Your task to perform on an android device: What's the weather today? Image 0: 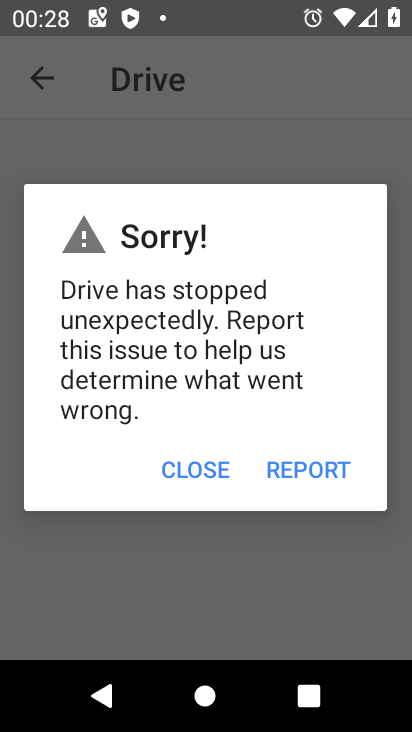
Step 0: press home button
Your task to perform on an android device: What's the weather today? Image 1: 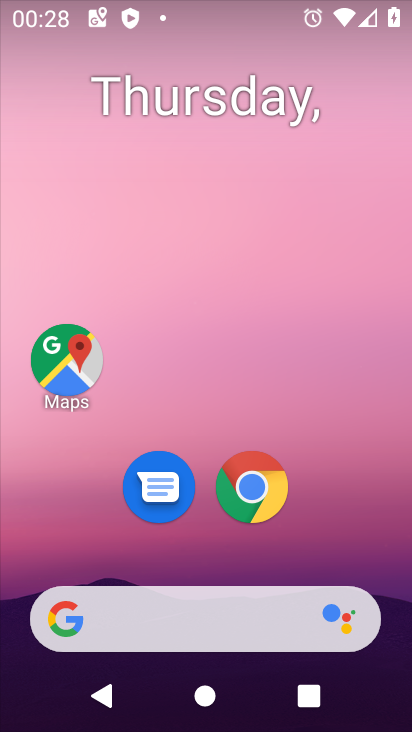
Step 1: click (114, 620)
Your task to perform on an android device: What's the weather today? Image 2: 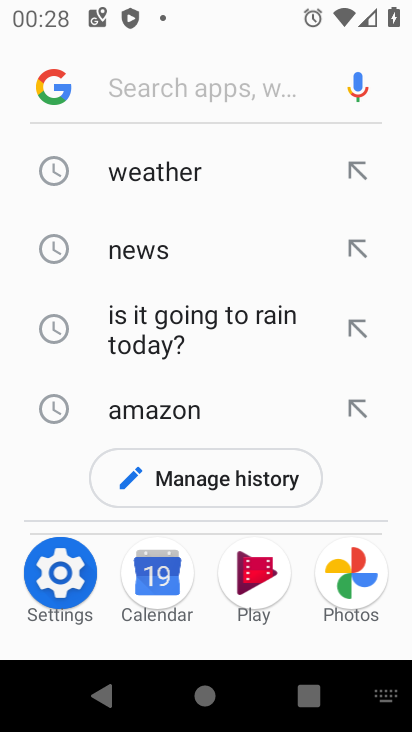
Step 2: click (146, 179)
Your task to perform on an android device: What's the weather today? Image 3: 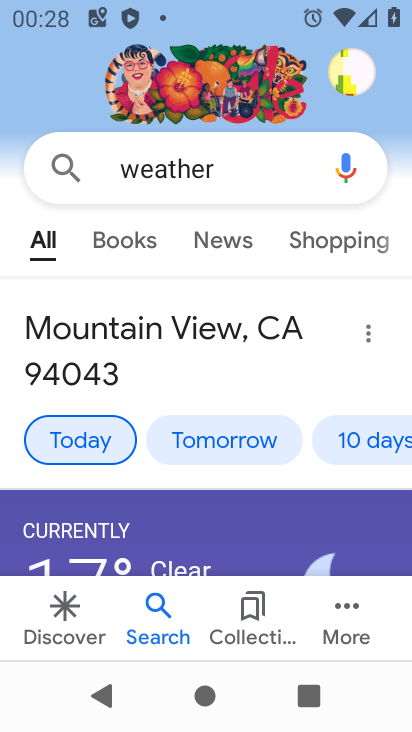
Step 3: task complete